Your task to perform on an android device: Clear the shopping cart on ebay. Image 0: 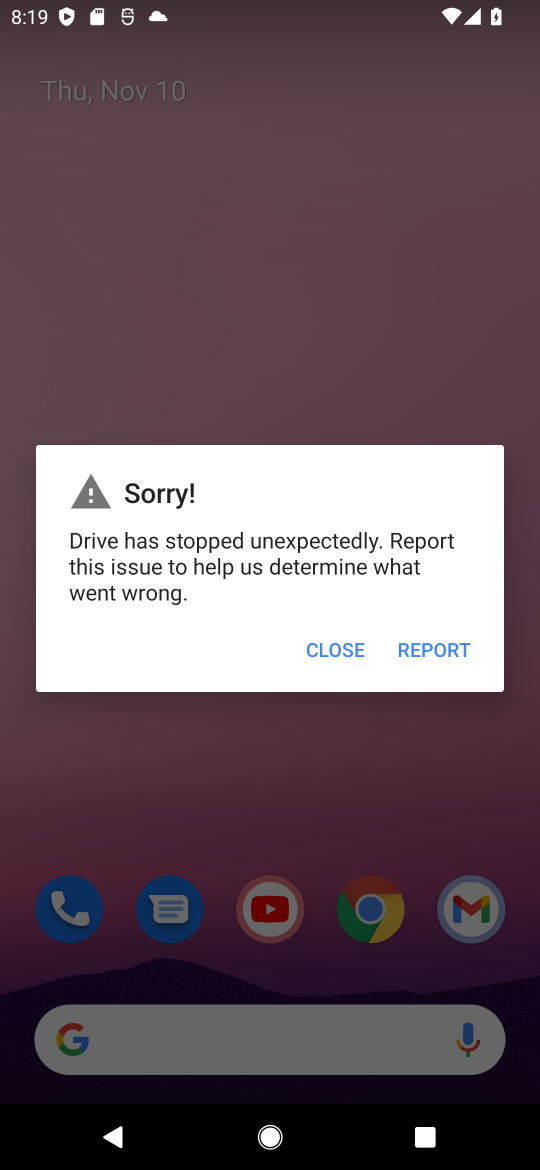
Step 0: click (341, 648)
Your task to perform on an android device: Clear the shopping cart on ebay. Image 1: 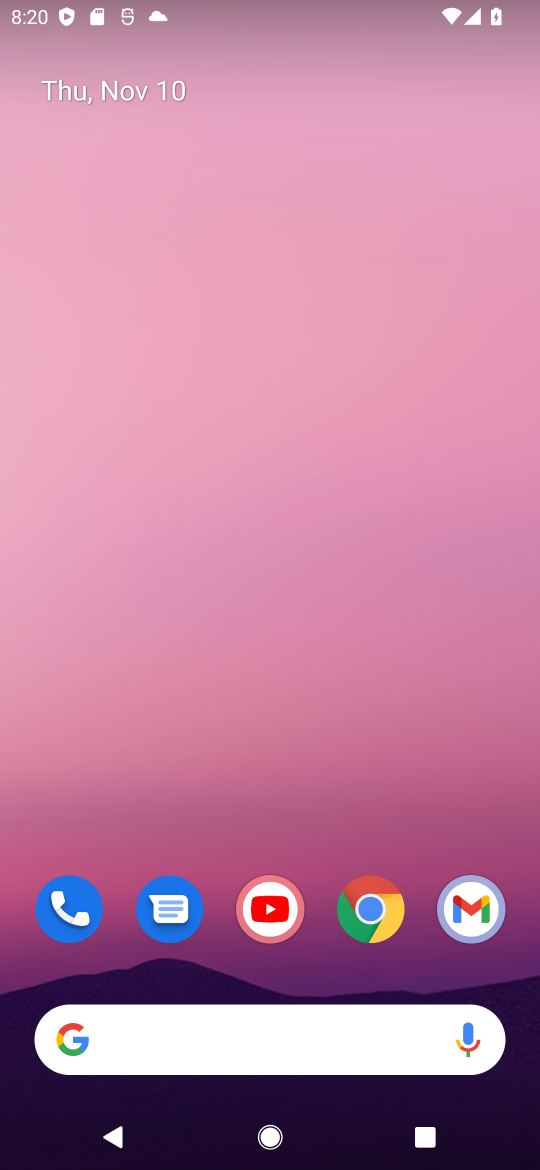
Step 1: drag from (275, 1020) to (375, 245)
Your task to perform on an android device: Clear the shopping cart on ebay. Image 2: 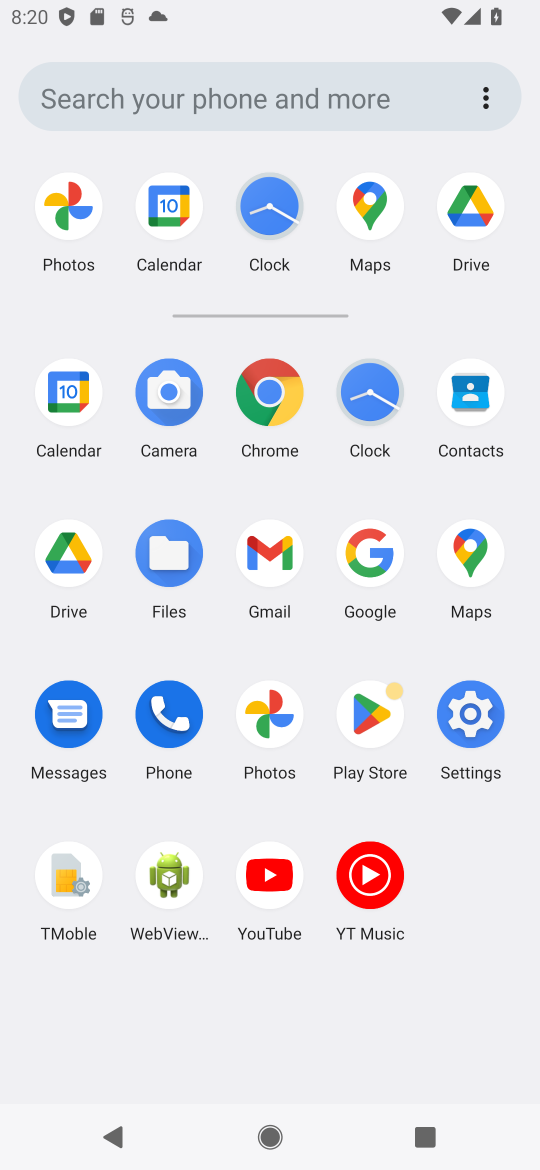
Step 2: click (358, 539)
Your task to perform on an android device: Clear the shopping cart on ebay. Image 3: 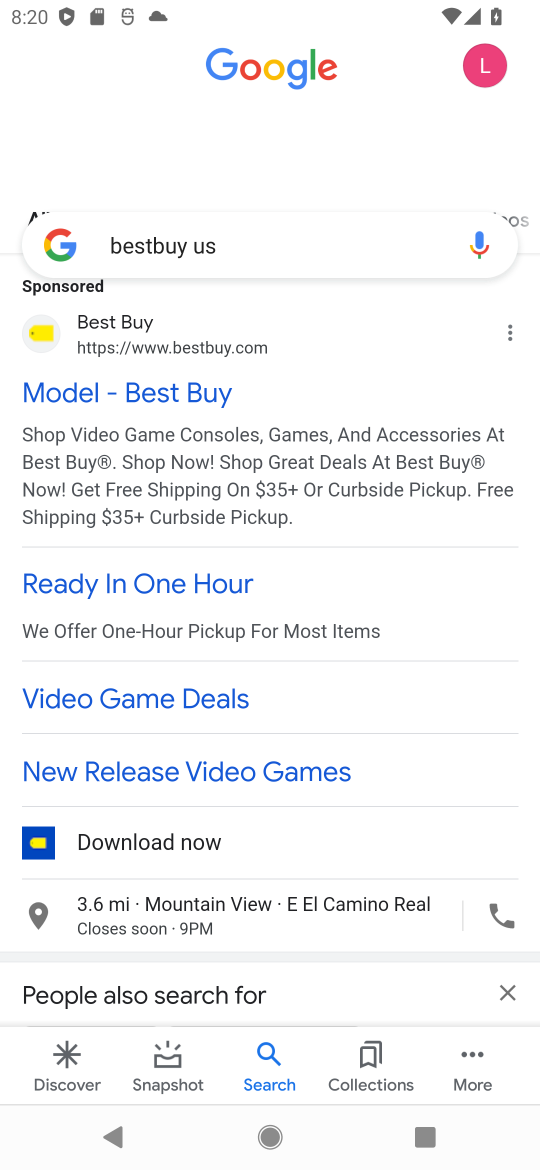
Step 3: click (237, 228)
Your task to perform on an android device: Clear the shopping cart on ebay. Image 4: 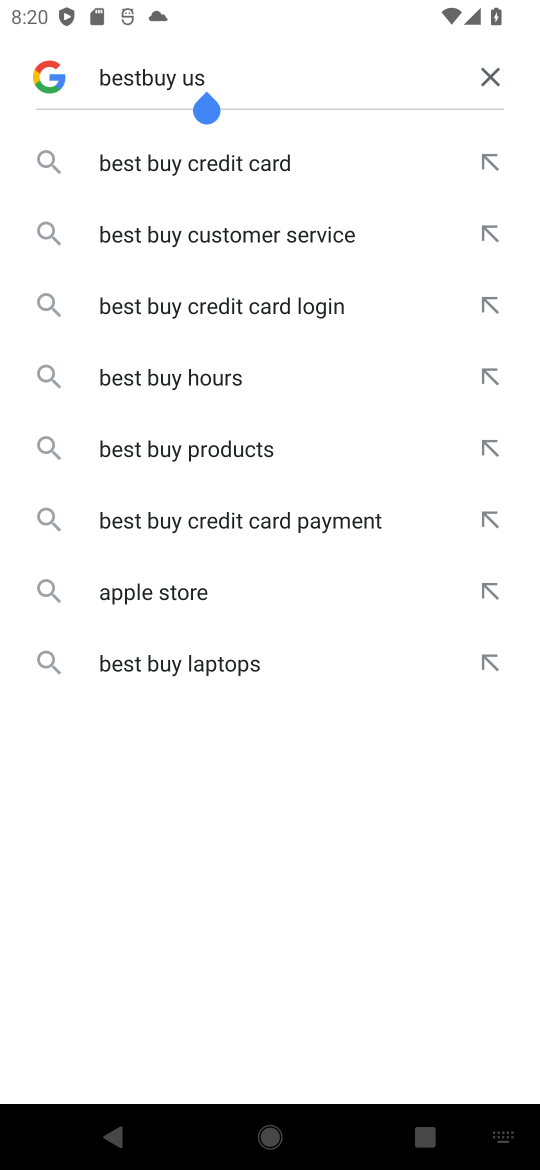
Step 4: click (486, 86)
Your task to perform on an android device: Clear the shopping cart on ebay. Image 5: 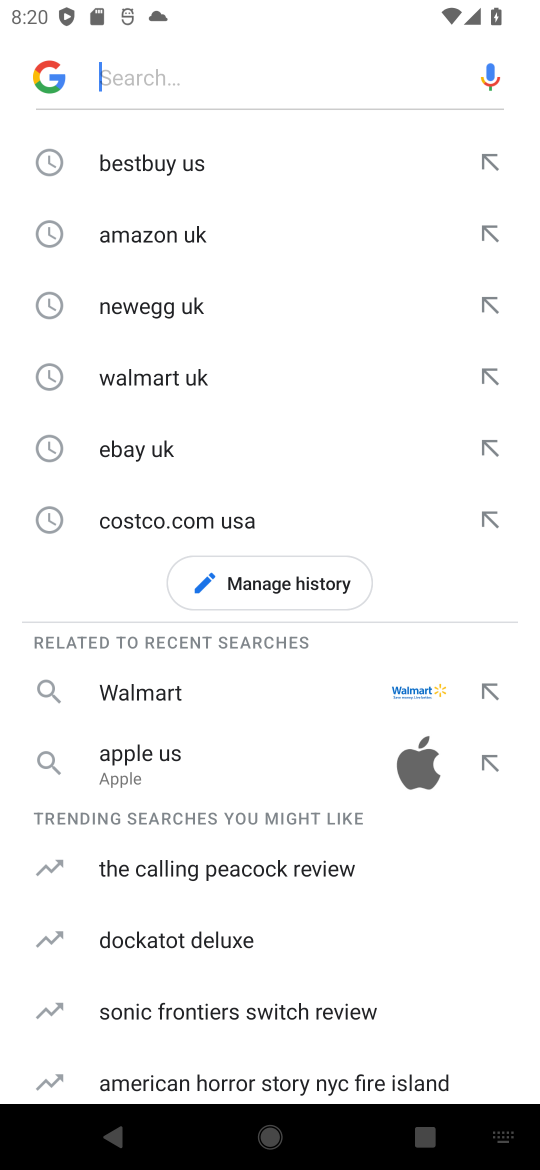
Step 5: click (254, 52)
Your task to perform on an android device: Clear the shopping cart on ebay. Image 6: 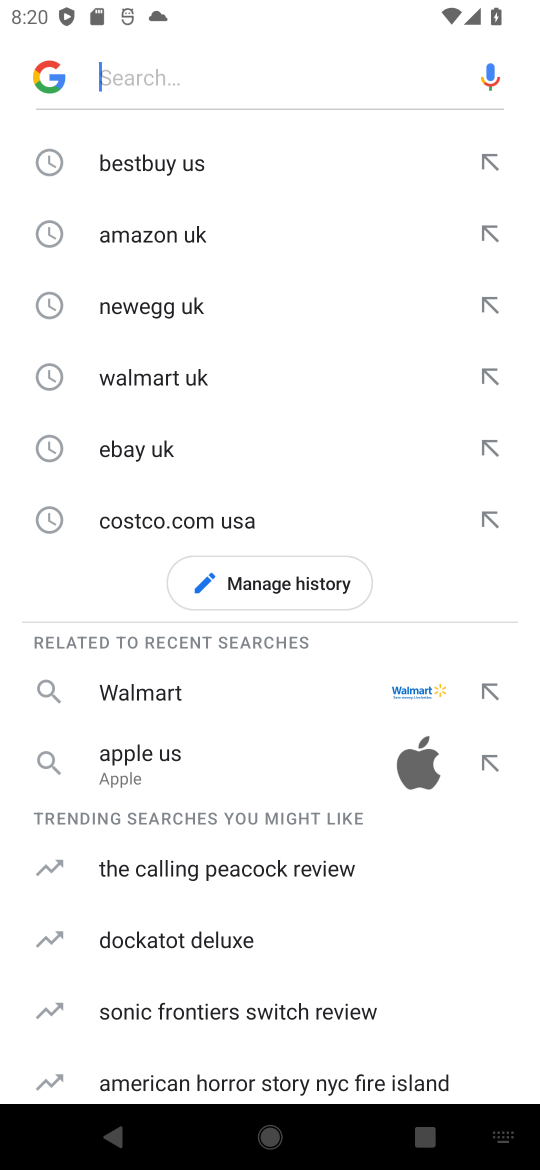
Step 6: type "ebay "
Your task to perform on an android device: Clear the shopping cart on ebay. Image 7: 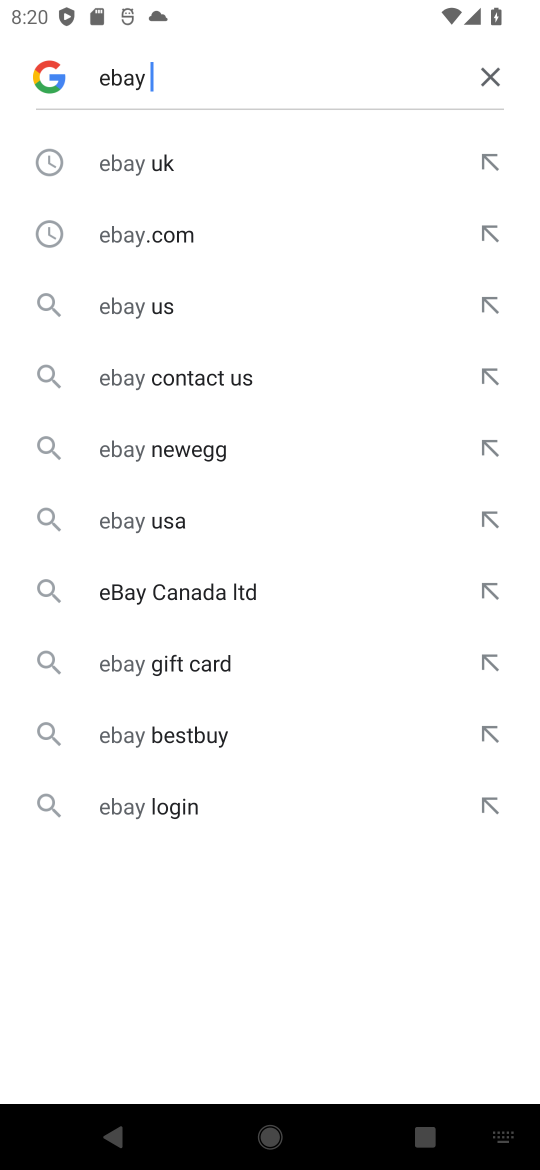
Step 7: click (146, 162)
Your task to perform on an android device: Clear the shopping cart on ebay. Image 8: 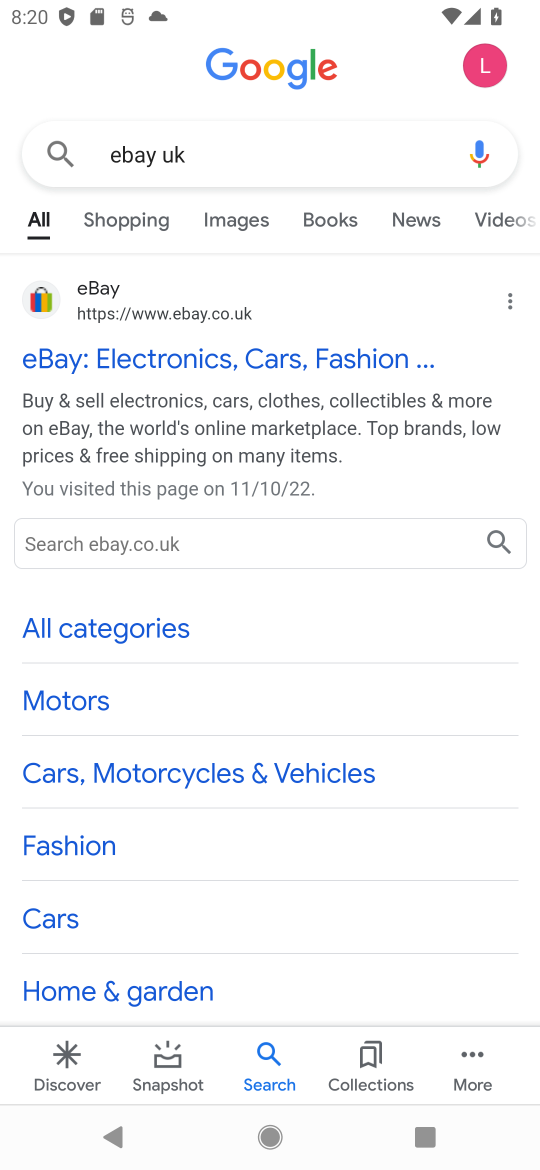
Step 8: click (47, 287)
Your task to perform on an android device: Clear the shopping cart on ebay. Image 9: 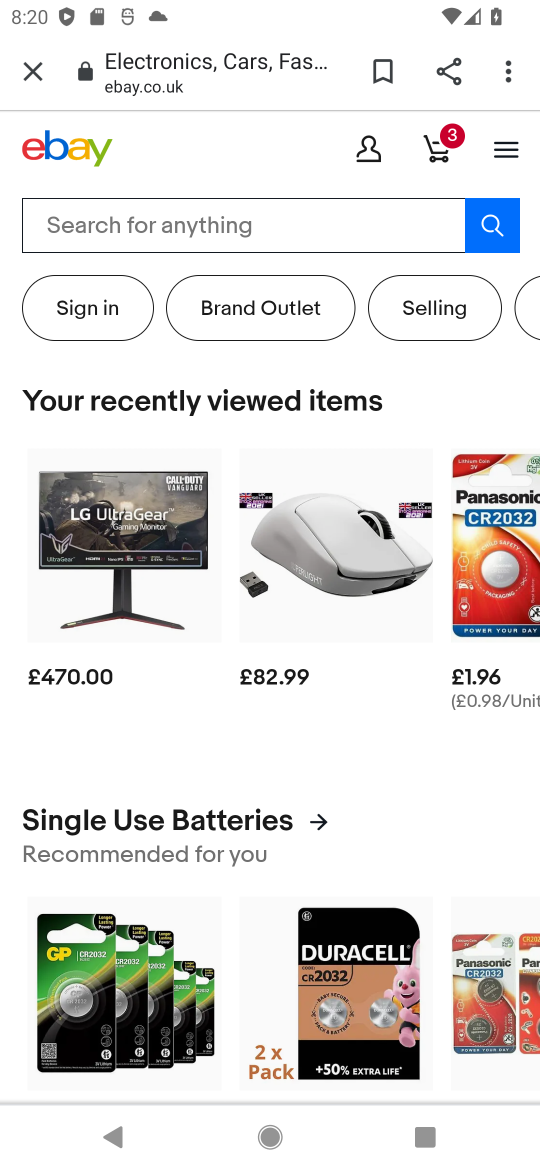
Step 9: click (447, 149)
Your task to perform on an android device: Clear the shopping cart on ebay. Image 10: 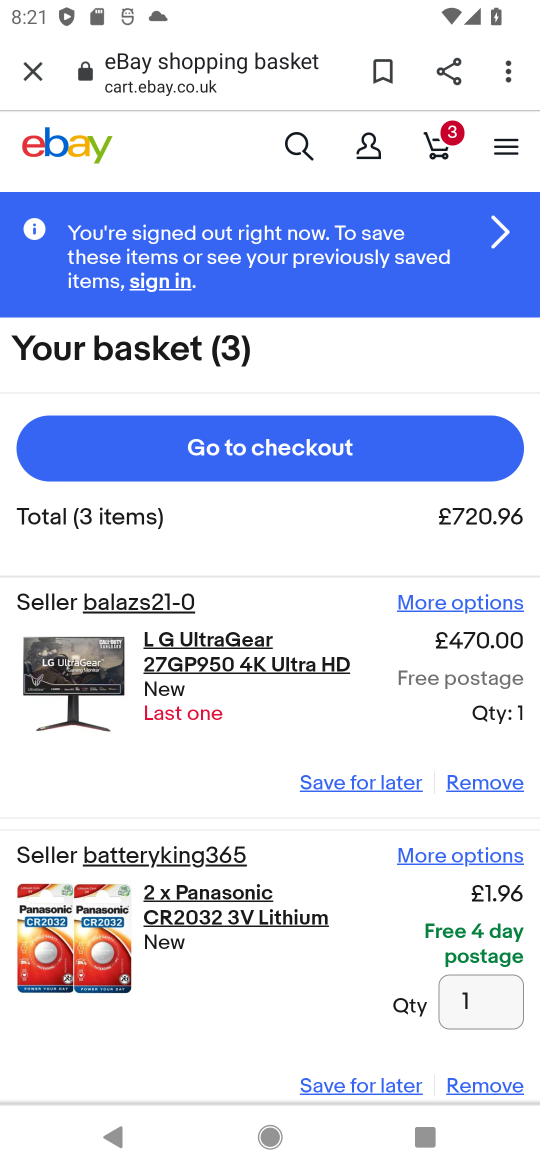
Step 10: click (441, 145)
Your task to perform on an android device: Clear the shopping cart on ebay. Image 11: 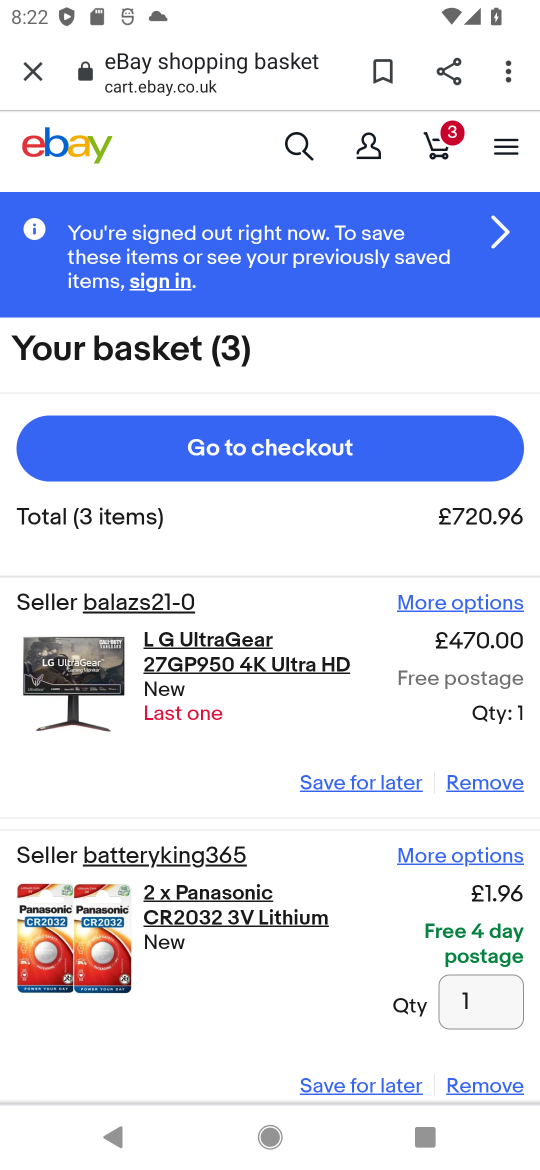
Step 11: task complete